Your task to perform on an android device: open chrome privacy settings Image 0: 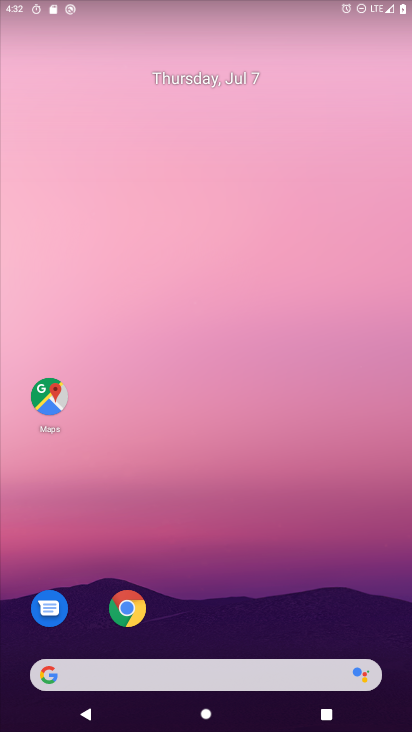
Step 0: click (130, 609)
Your task to perform on an android device: open chrome privacy settings Image 1: 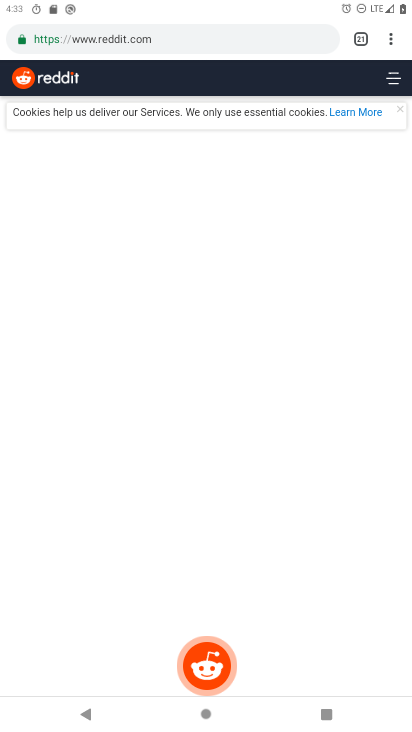
Step 1: click (390, 42)
Your task to perform on an android device: open chrome privacy settings Image 2: 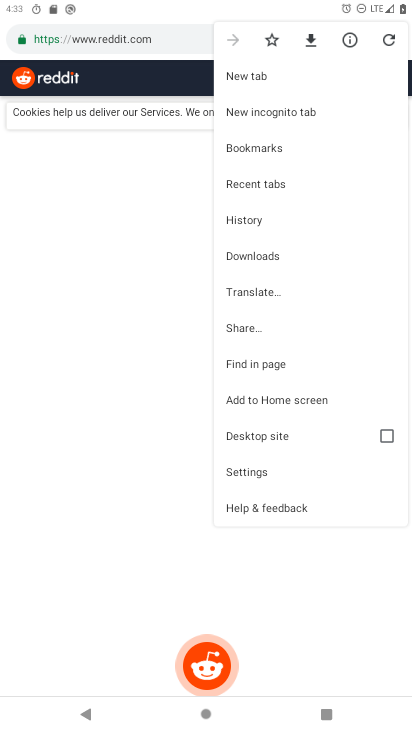
Step 2: click (245, 471)
Your task to perform on an android device: open chrome privacy settings Image 3: 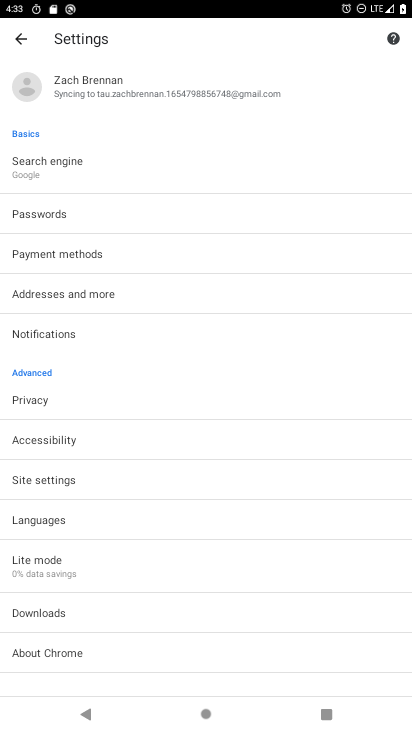
Step 3: click (30, 398)
Your task to perform on an android device: open chrome privacy settings Image 4: 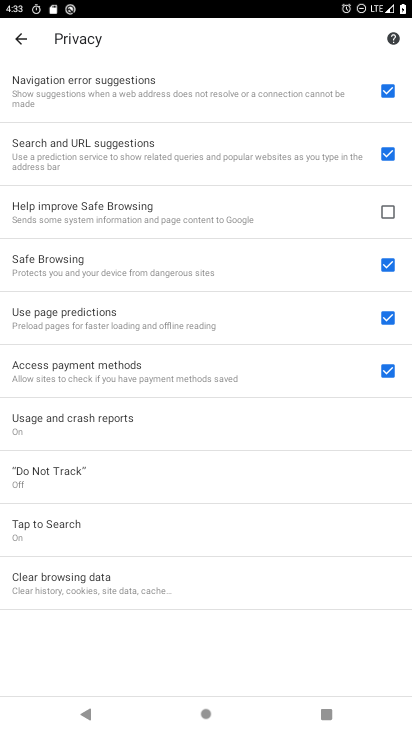
Step 4: task complete